Your task to perform on an android device: open chrome privacy settings Image 0: 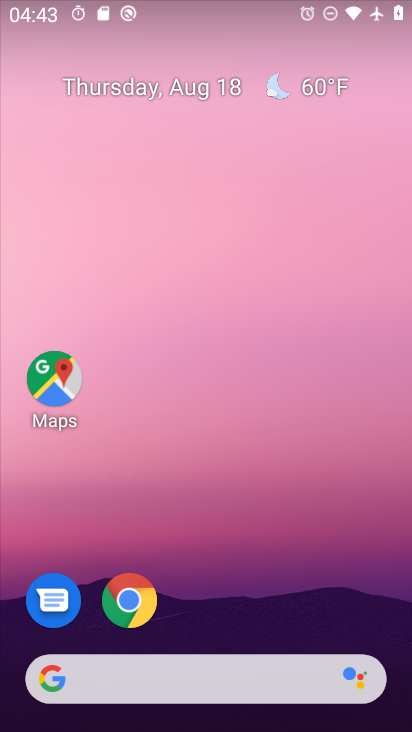
Step 0: press home button
Your task to perform on an android device: open chrome privacy settings Image 1: 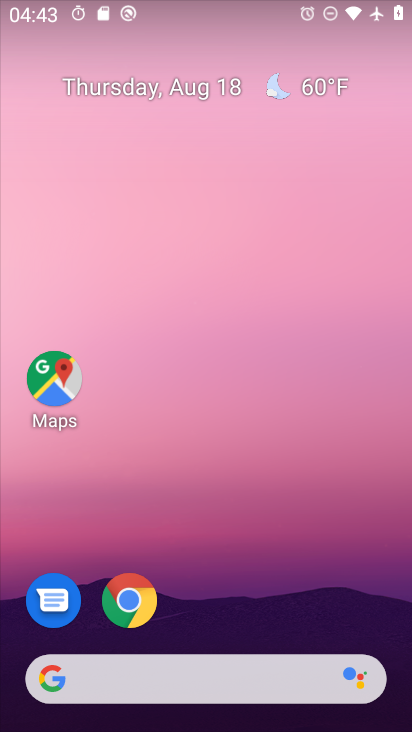
Step 1: click (123, 599)
Your task to perform on an android device: open chrome privacy settings Image 2: 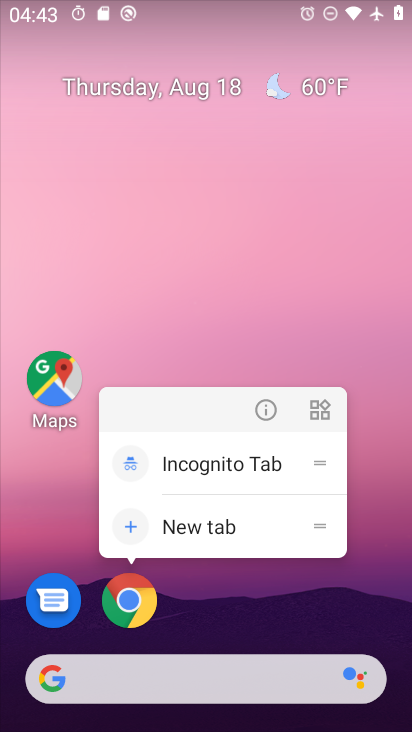
Step 2: click (123, 599)
Your task to perform on an android device: open chrome privacy settings Image 3: 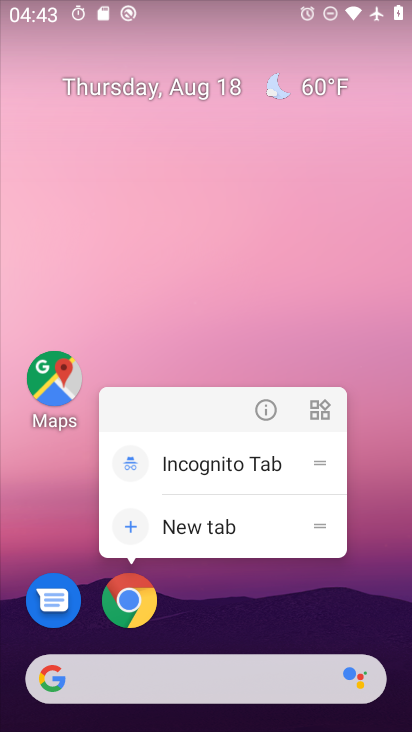
Step 3: click (123, 599)
Your task to perform on an android device: open chrome privacy settings Image 4: 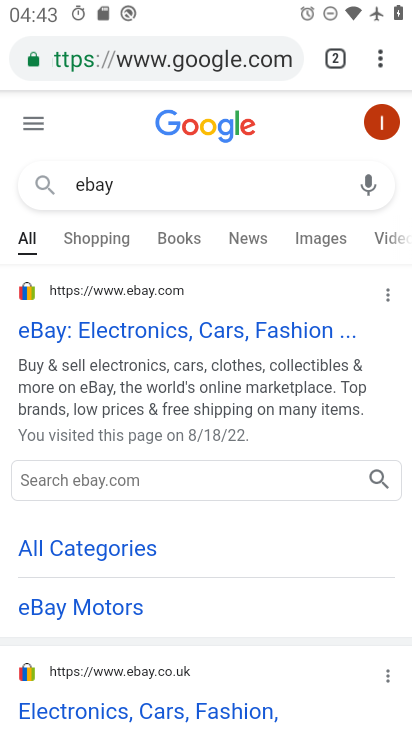
Step 4: drag from (381, 61) to (181, 660)
Your task to perform on an android device: open chrome privacy settings Image 5: 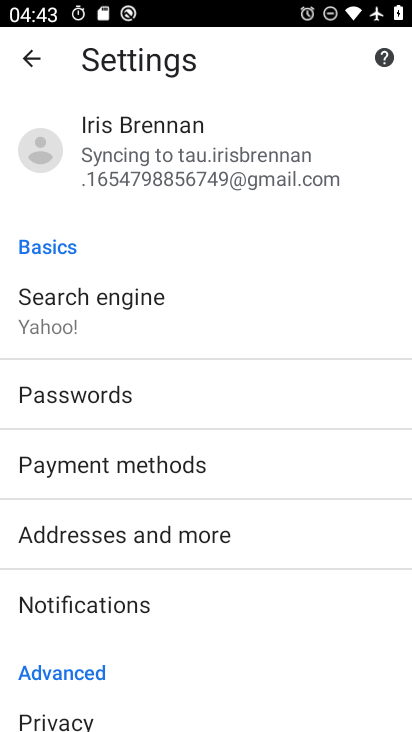
Step 5: click (73, 720)
Your task to perform on an android device: open chrome privacy settings Image 6: 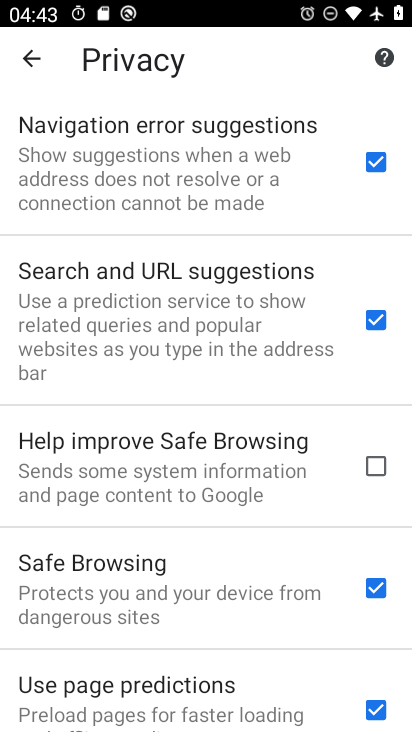
Step 6: task complete